Your task to perform on an android device: Open calendar and show me the first week of next month Image 0: 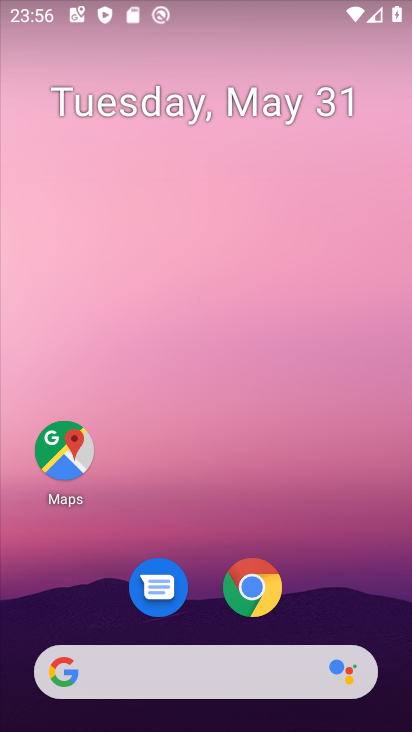
Step 0: drag from (321, 605) to (285, 89)
Your task to perform on an android device: Open calendar and show me the first week of next month Image 1: 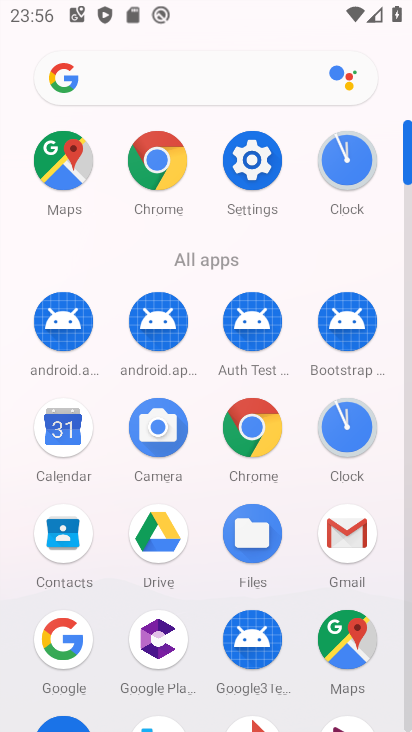
Step 1: click (71, 441)
Your task to perform on an android device: Open calendar and show me the first week of next month Image 2: 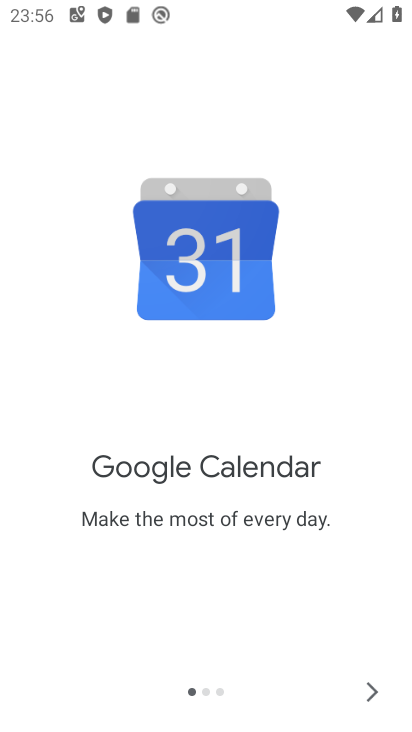
Step 2: click (369, 700)
Your task to perform on an android device: Open calendar and show me the first week of next month Image 3: 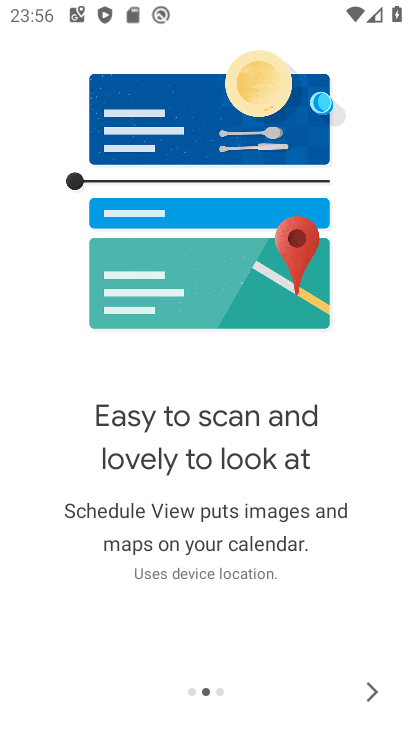
Step 3: click (368, 695)
Your task to perform on an android device: Open calendar and show me the first week of next month Image 4: 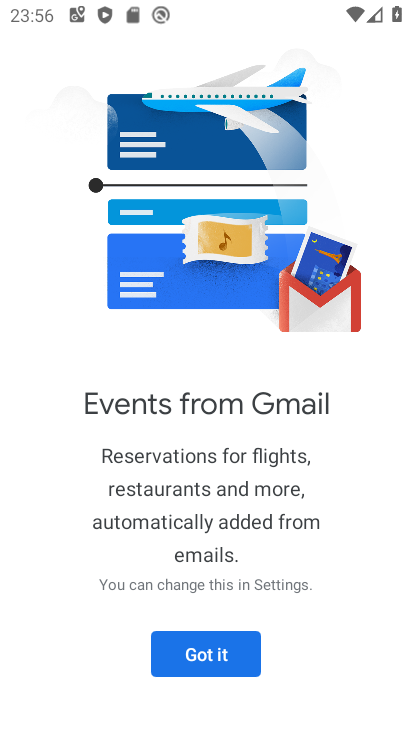
Step 4: click (192, 654)
Your task to perform on an android device: Open calendar and show me the first week of next month Image 5: 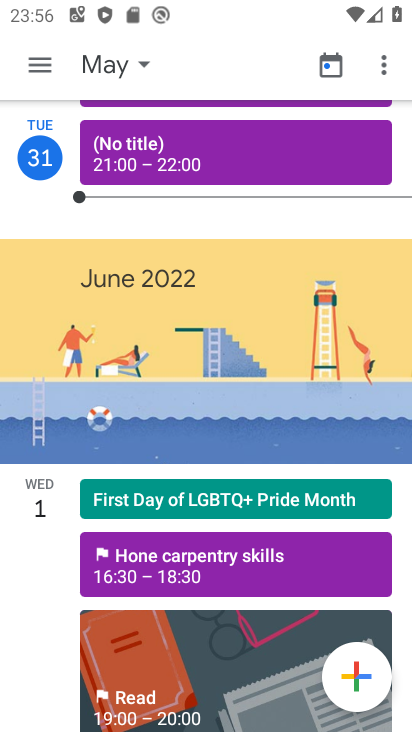
Step 5: click (90, 77)
Your task to perform on an android device: Open calendar and show me the first week of next month Image 6: 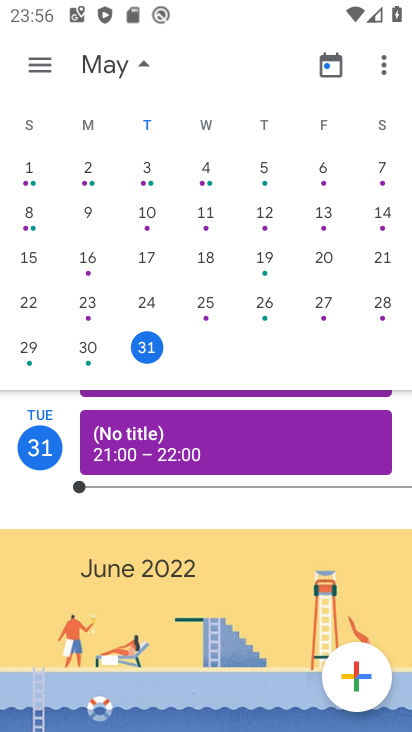
Step 6: task complete